Your task to perform on an android device: Show me popular games on the Play Store Image 0: 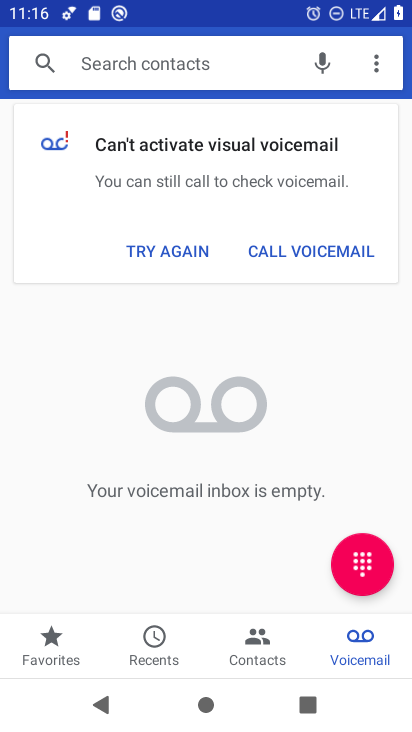
Step 0: press home button
Your task to perform on an android device: Show me popular games on the Play Store Image 1: 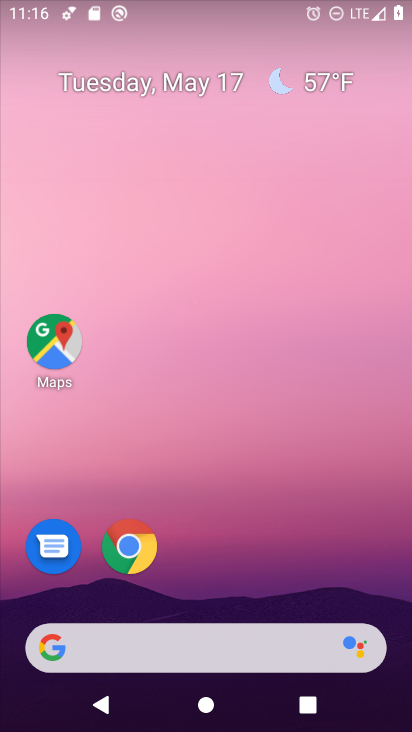
Step 1: drag from (340, 608) to (283, 21)
Your task to perform on an android device: Show me popular games on the Play Store Image 2: 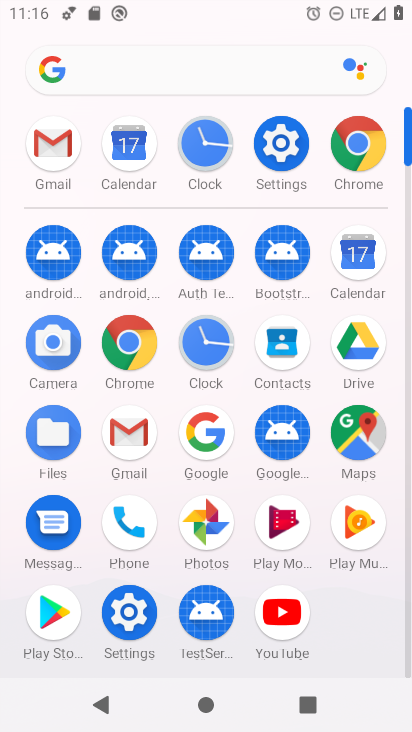
Step 2: click (40, 627)
Your task to perform on an android device: Show me popular games on the Play Store Image 3: 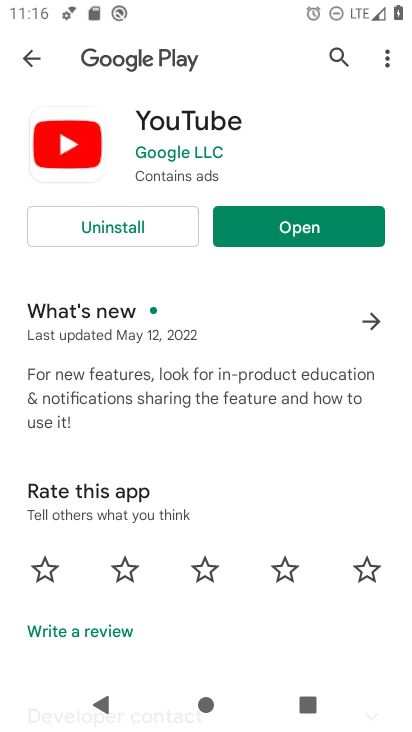
Step 3: click (33, 61)
Your task to perform on an android device: Show me popular games on the Play Store Image 4: 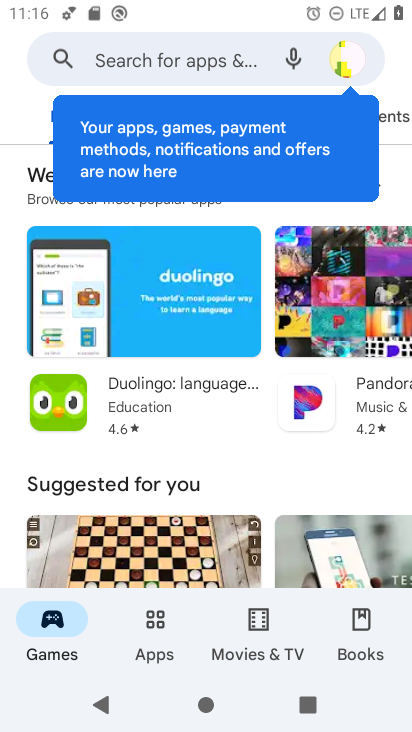
Step 4: drag from (211, 525) to (170, 197)
Your task to perform on an android device: Show me popular games on the Play Store Image 5: 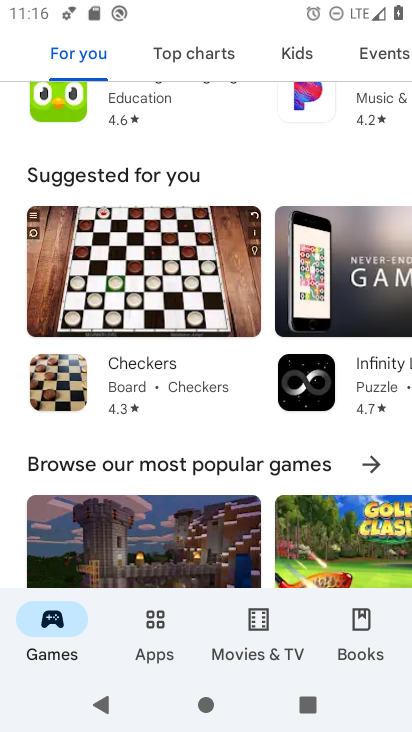
Step 5: click (236, 458)
Your task to perform on an android device: Show me popular games on the Play Store Image 6: 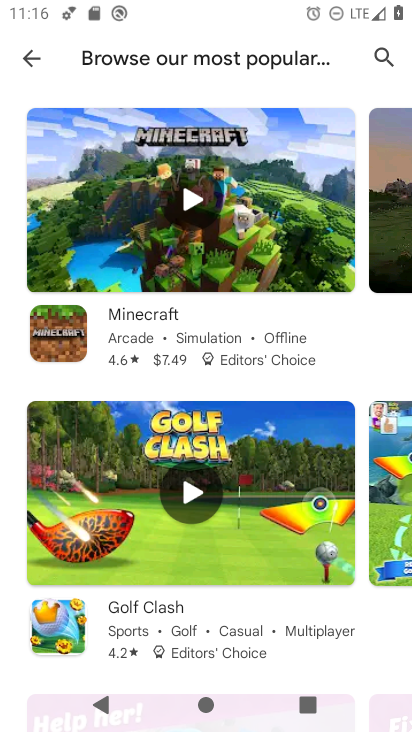
Step 6: task complete